Your task to perform on an android device: Open Google Image 0: 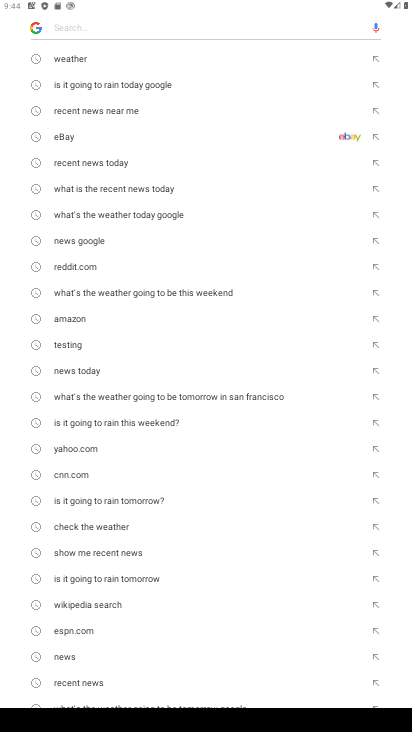
Step 0: press home button
Your task to perform on an android device: Open Google Image 1: 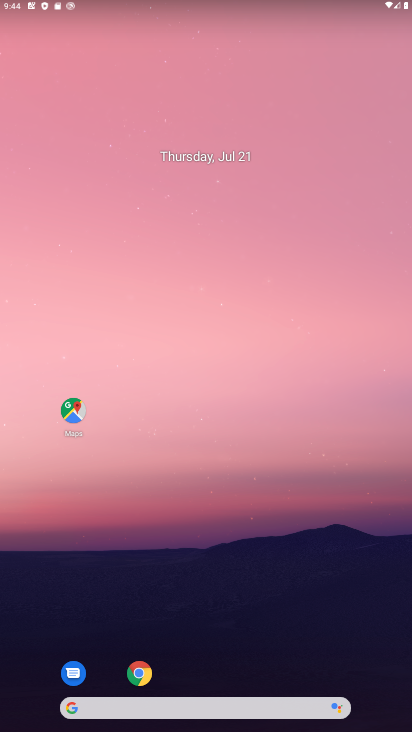
Step 1: drag from (165, 612) to (279, 10)
Your task to perform on an android device: Open Google Image 2: 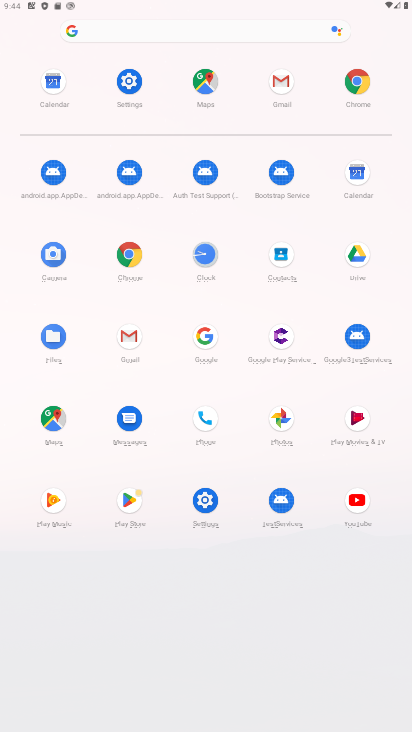
Step 2: click (201, 336)
Your task to perform on an android device: Open Google Image 3: 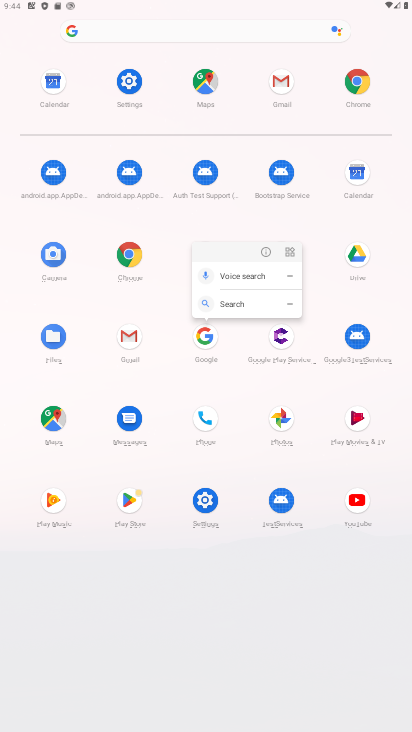
Step 3: click (262, 245)
Your task to perform on an android device: Open Google Image 4: 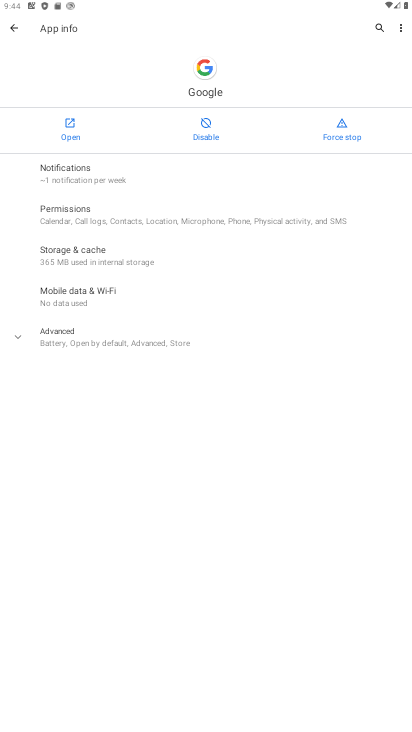
Step 4: click (58, 126)
Your task to perform on an android device: Open Google Image 5: 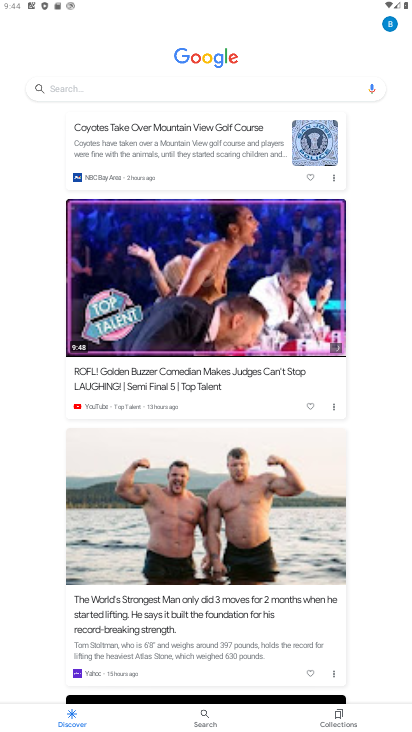
Step 5: task complete